Your task to perform on an android device: toggle notification dots Image 0: 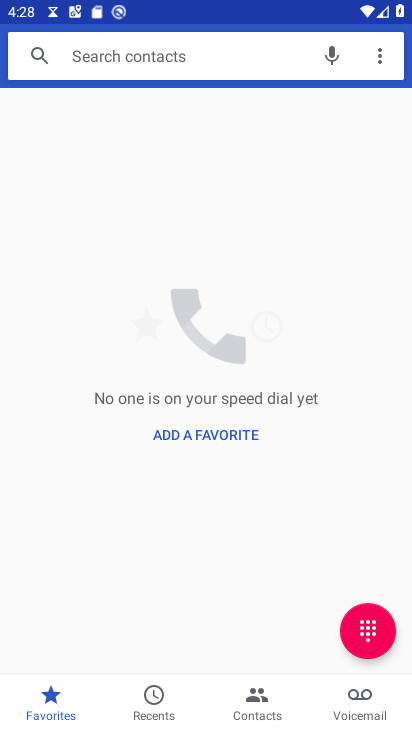
Step 0: press home button
Your task to perform on an android device: toggle notification dots Image 1: 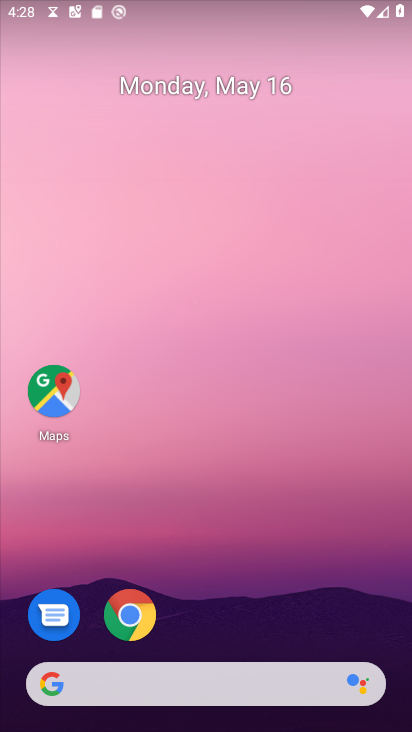
Step 1: drag from (232, 617) to (18, 670)
Your task to perform on an android device: toggle notification dots Image 2: 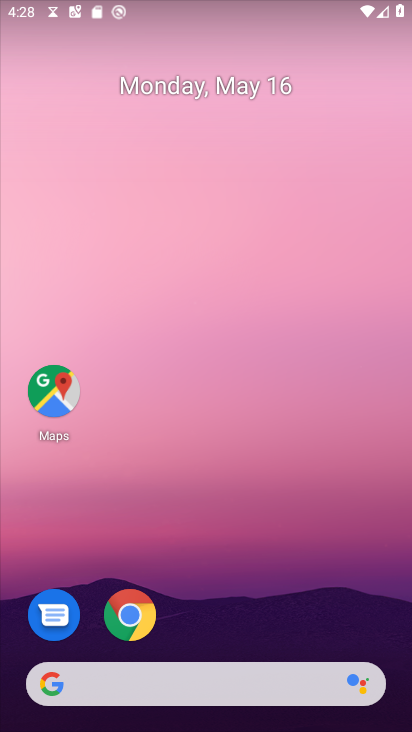
Step 2: click (211, 656)
Your task to perform on an android device: toggle notification dots Image 3: 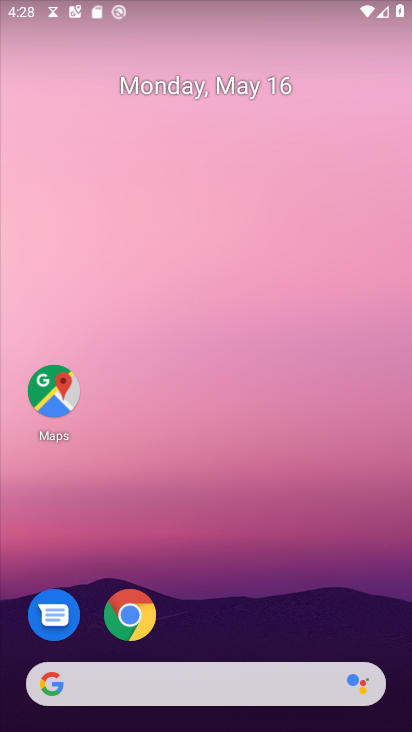
Step 3: drag from (209, 650) to (227, 275)
Your task to perform on an android device: toggle notification dots Image 4: 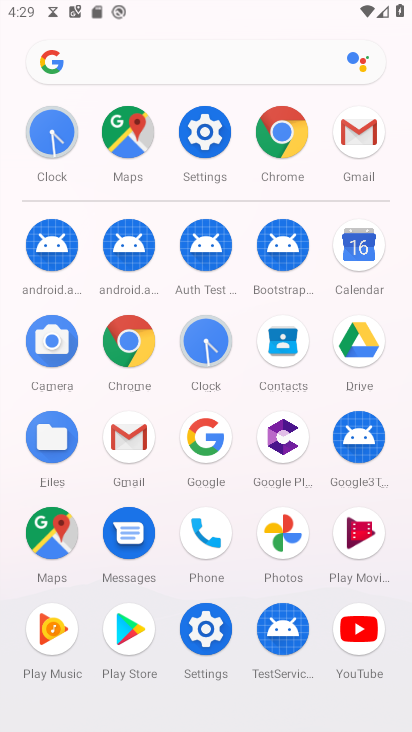
Step 4: click (203, 130)
Your task to perform on an android device: toggle notification dots Image 5: 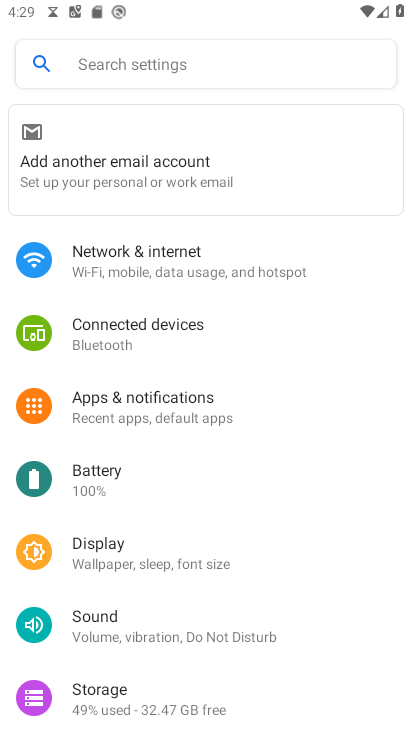
Step 5: click (163, 400)
Your task to perform on an android device: toggle notification dots Image 6: 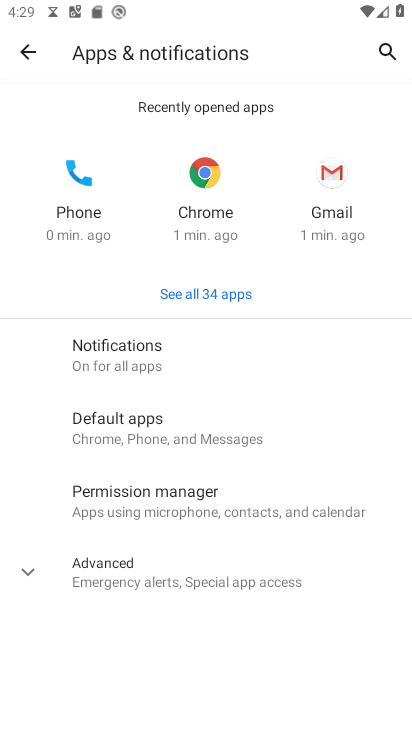
Step 6: click (134, 594)
Your task to perform on an android device: toggle notification dots Image 7: 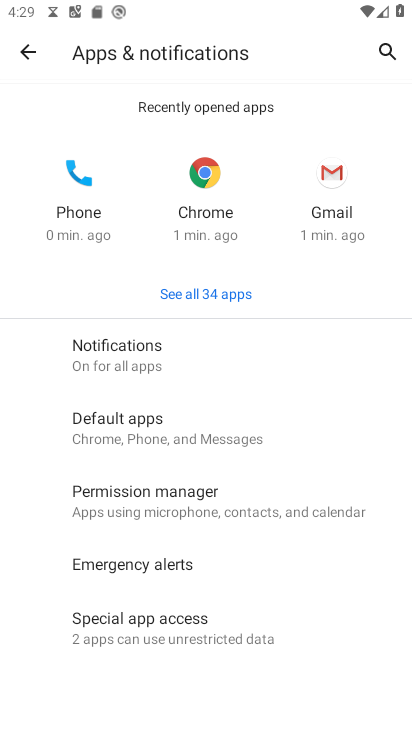
Step 7: click (127, 364)
Your task to perform on an android device: toggle notification dots Image 8: 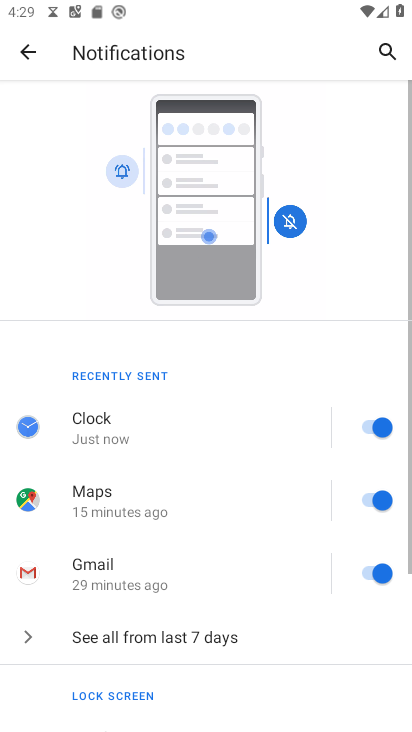
Step 8: drag from (145, 640) to (183, 205)
Your task to perform on an android device: toggle notification dots Image 9: 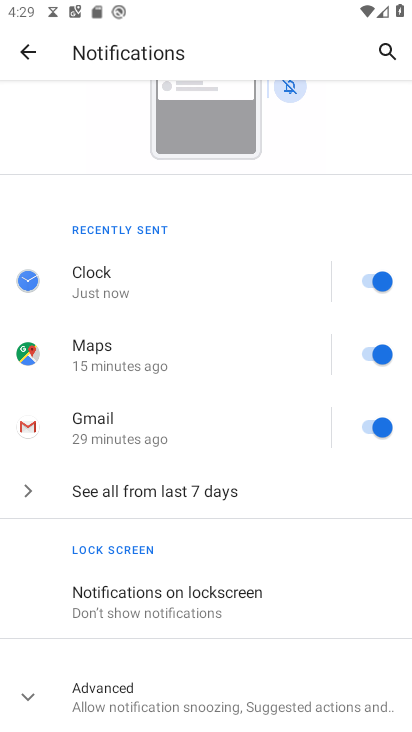
Step 9: click (124, 700)
Your task to perform on an android device: toggle notification dots Image 10: 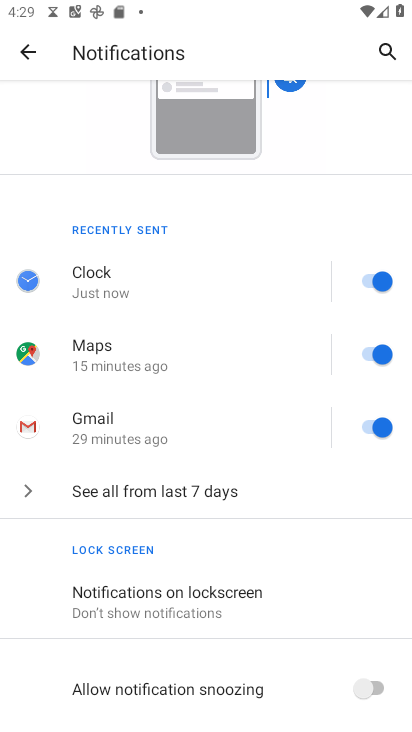
Step 10: drag from (193, 635) to (162, 458)
Your task to perform on an android device: toggle notification dots Image 11: 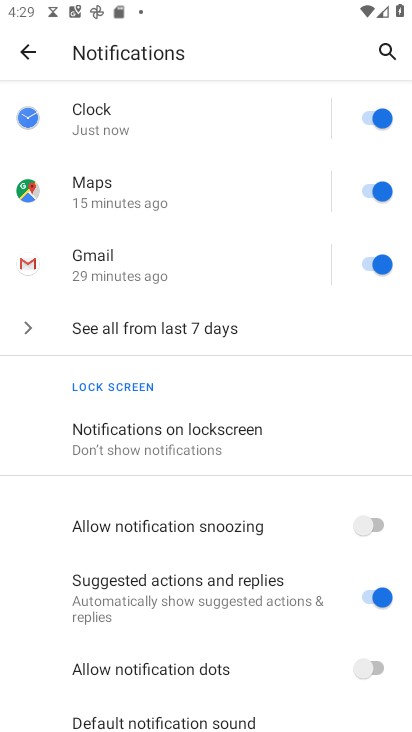
Step 11: click (386, 671)
Your task to perform on an android device: toggle notification dots Image 12: 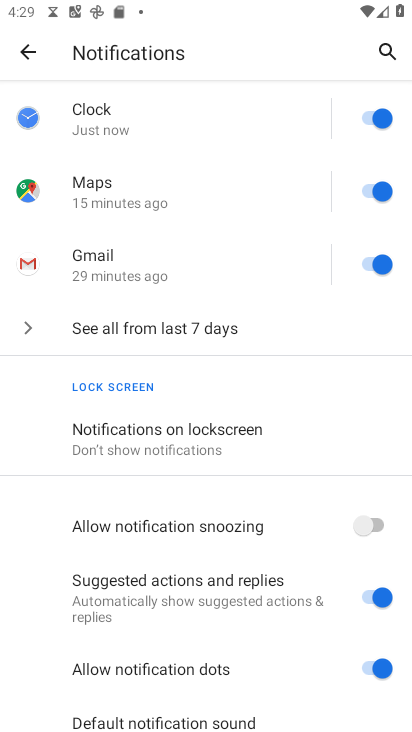
Step 12: task complete